Your task to perform on an android device: Open Youtube and go to the subscriptions tab Image 0: 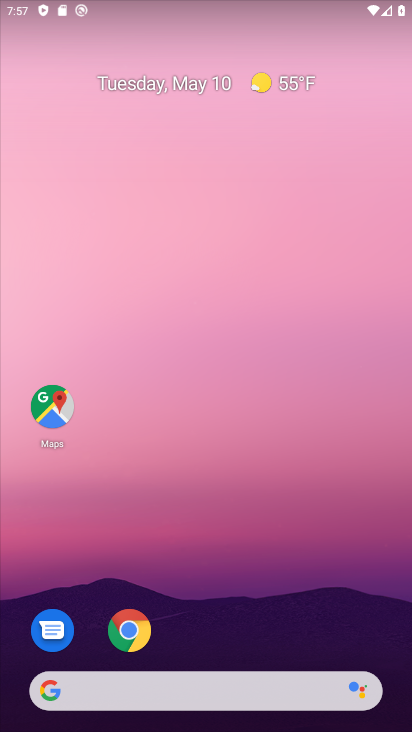
Step 0: drag from (280, 496) to (239, 6)
Your task to perform on an android device: Open Youtube and go to the subscriptions tab Image 1: 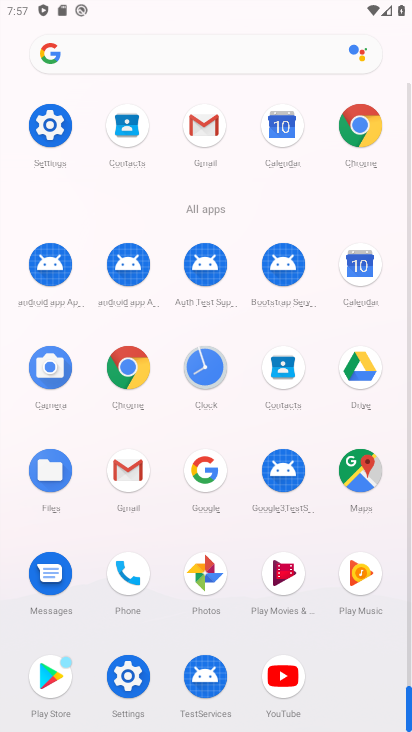
Step 1: drag from (8, 572) to (16, 251)
Your task to perform on an android device: Open Youtube and go to the subscriptions tab Image 2: 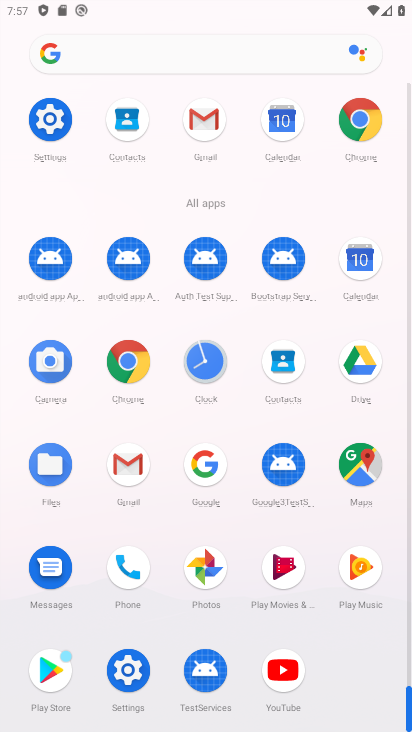
Step 2: click (277, 667)
Your task to perform on an android device: Open Youtube and go to the subscriptions tab Image 3: 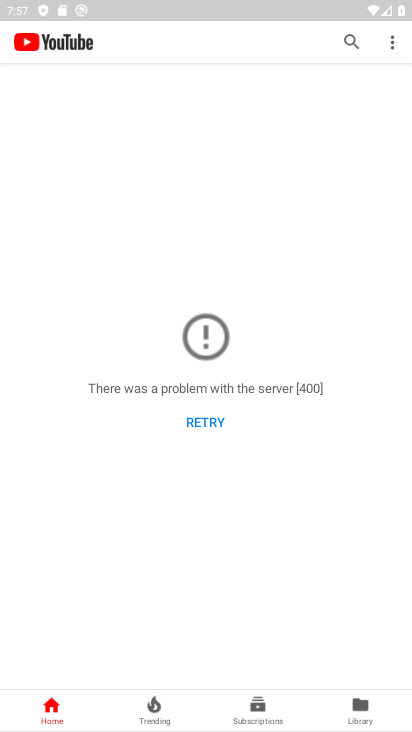
Step 3: click (261, 693)
Your task to perform on an android device: Open Youtube and go to the subscriptions tab Image 4: 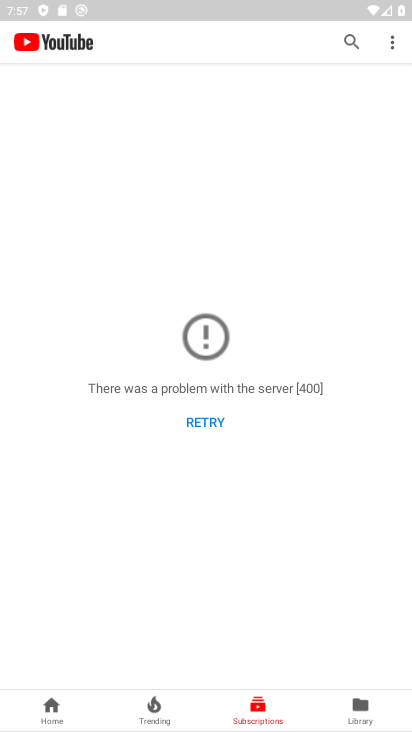
Step 4: task complete